Your task to perform on an android device: Go to wifi settings Image 0: 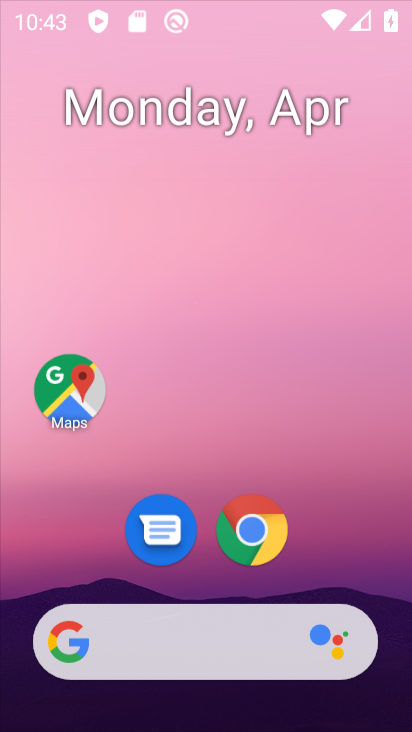
Step 0: click (250, 0)
Your task to perform on an android device: Go to wifi settings Image 1: 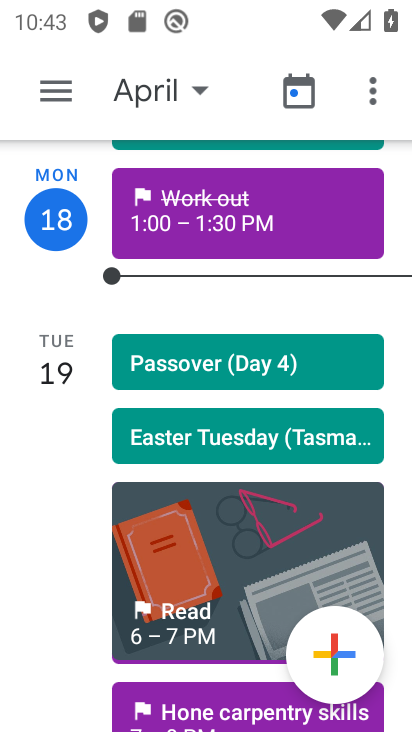
Step 1: press home button
Your task to perform on an android device: Go to wifi settings Image 2: 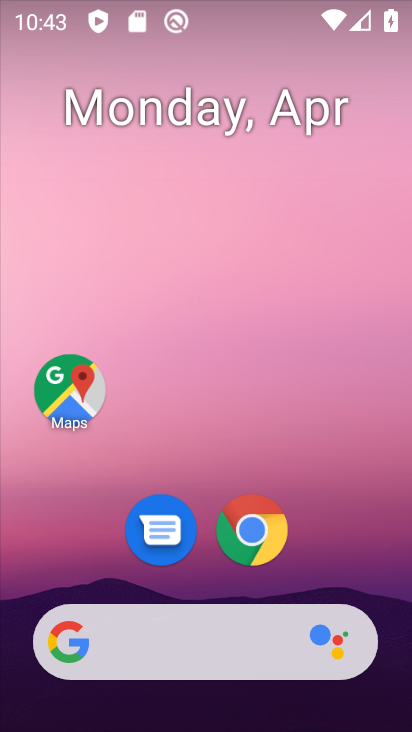
Step 2: drag from (342, 565) to (268, 19)
Your task to perform on an android device: Go to wifi settings Image 3: 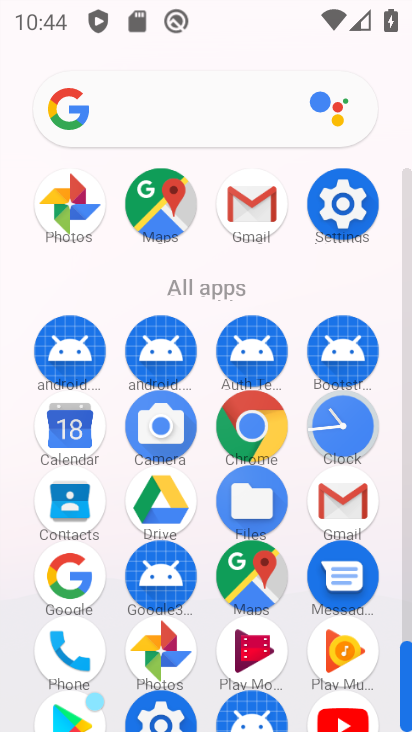
Step 3: click (340, 203)
Your task to perform on an android device: Go to wifi settings Image 4: 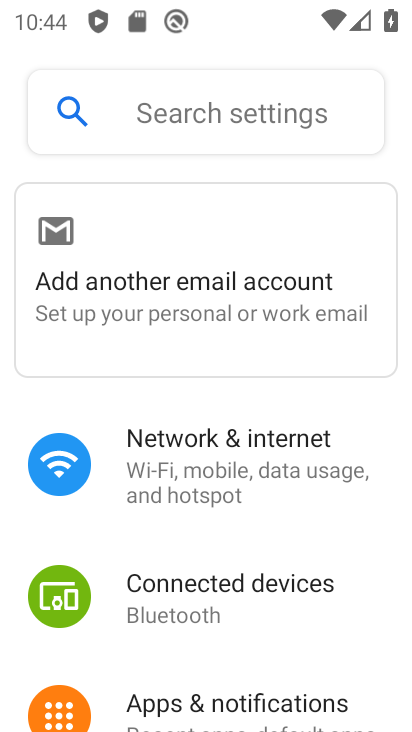
Step 4: click (241, 508)
Your task to perform on an android device: Go to wifi settings Image 5: 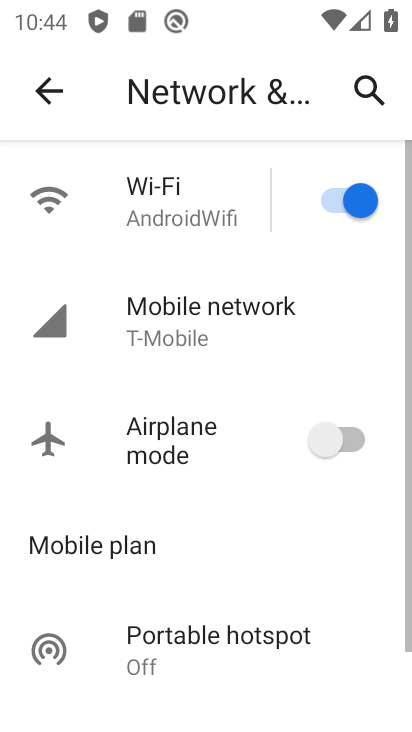
Step 5: click (246, 232)
Your task to perform on an android device: Go to wifi settings Image 6: 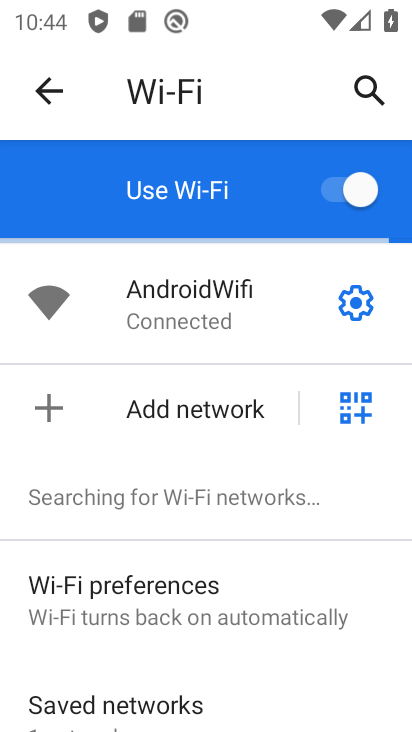
Step 6: task complete